Your task to perform on an android device: Go to Google maps Image 0: 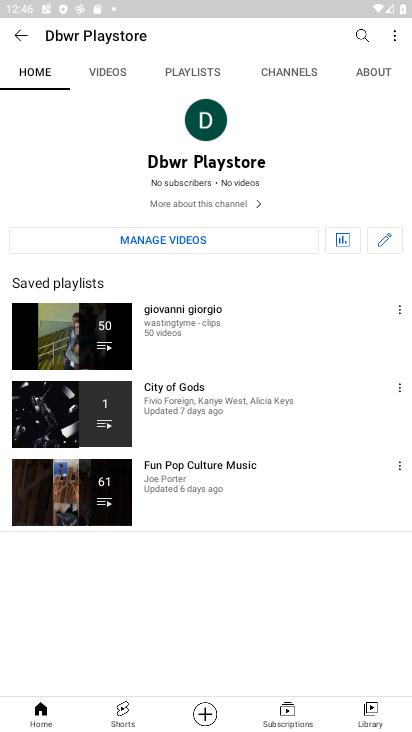
Step 0: press home button
Your task to perform on an android device: Go to Google maps Image 1: 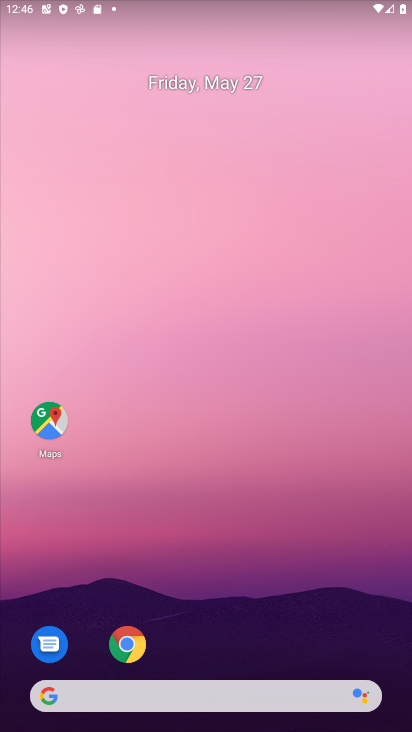
Step 1: drag from (306, 622) to (176, 22)
Your task to perform on an android device: Go to Google maps Image 2: 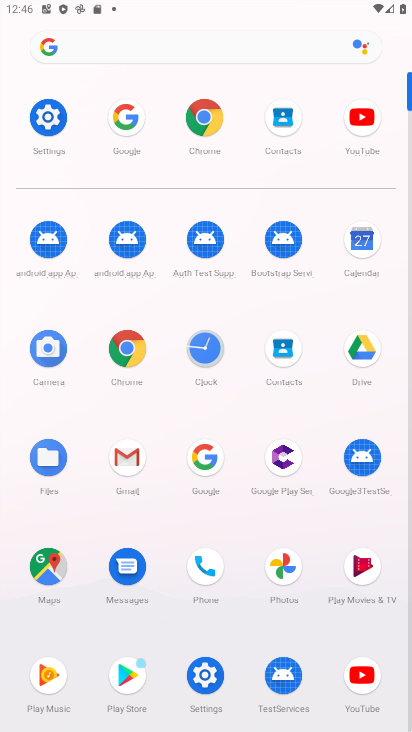
Step 2: click (203, 441)
Your task to perform on an android device: Go to Google maps Image 3: 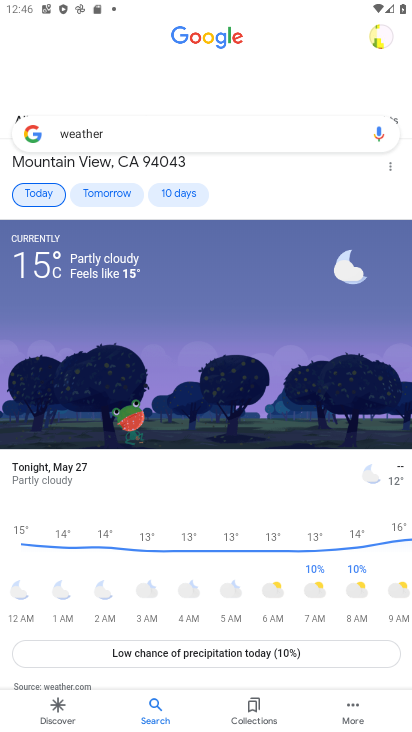
Step 3: press back button
Your task to perform on an android device: Go to Google maps Image 4: 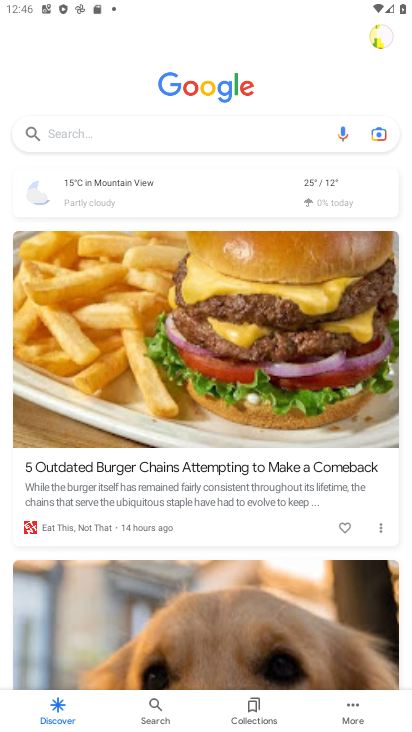
Step 4: press home button
Your task to perform on an android device: Go to Google maps Image 5: 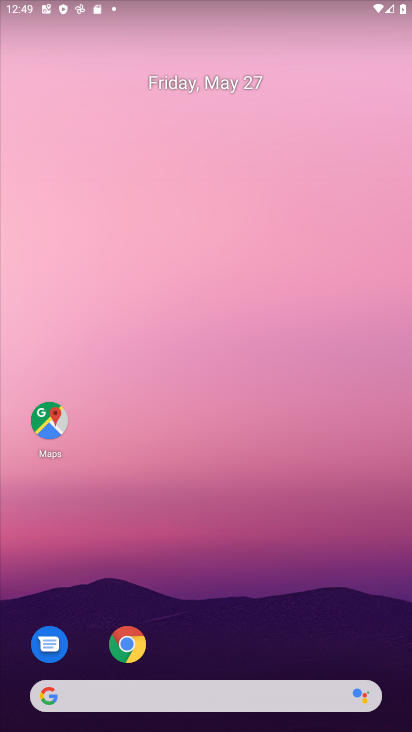
Step 5: drag from (317, 621) to (184, 64)
Your task to perform on an android device: Go to Google maps Image 6: 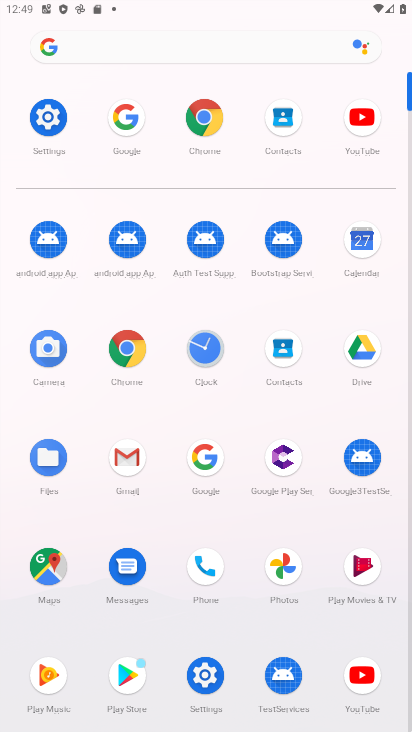
Step 6: click (51, 561)
Your task to perform on an android device: Go to Google maps Image 7: 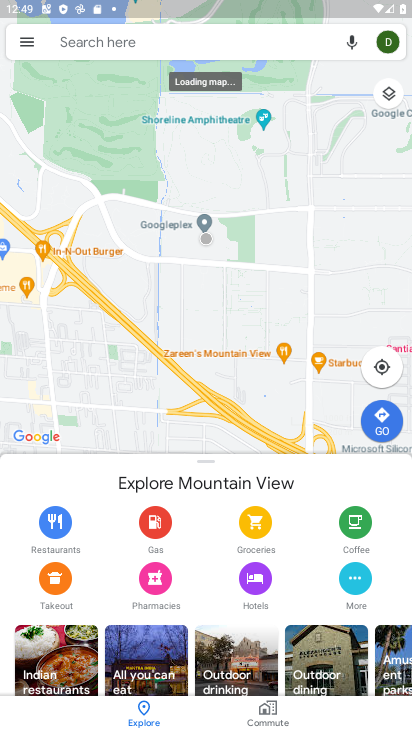
Step 7: task complete